Your task to perform on an android device: Open Chrome and go to settings Image 0: 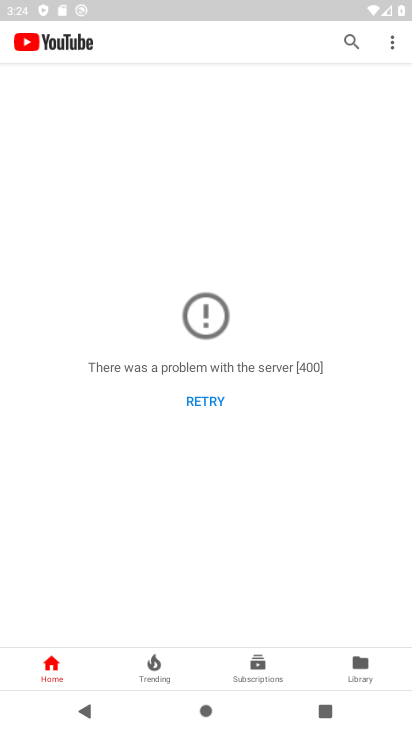
Step 0: press home button
Your task to perform on an android device: Open Chrome and go to settings Image 1: 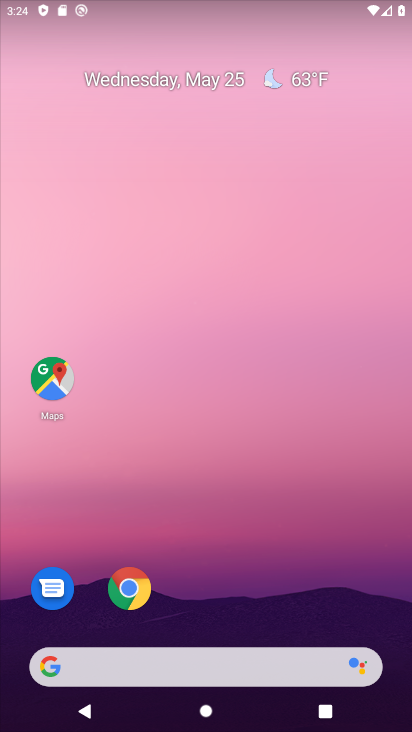
Step 1: click (140, 586)
Your task to perform on an android device: Open Chrome and go to settings Image 2: 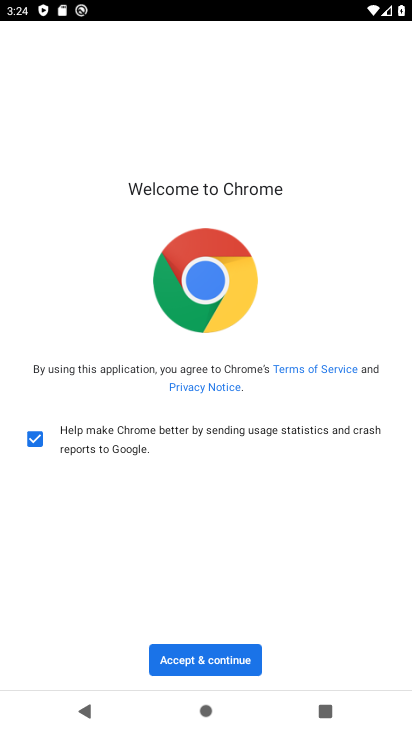
Step 2: click (188, 657)
Your task to perform on an android device: Open Chrome and go to settings Image 3: 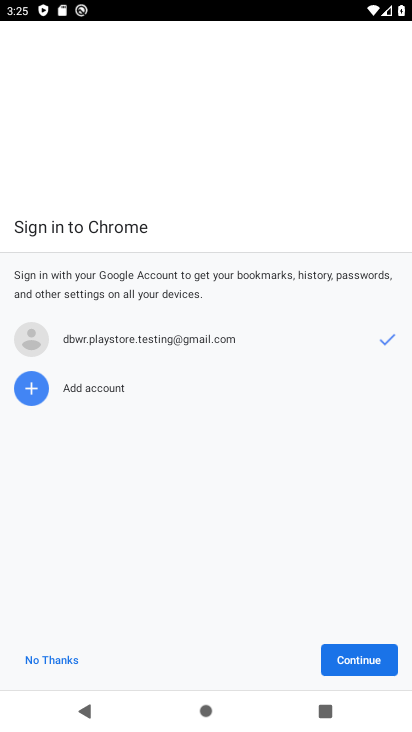
Step 3: click (382, 665)
Your task to perform on an android device: Open Chrome and go to settings Image 4: 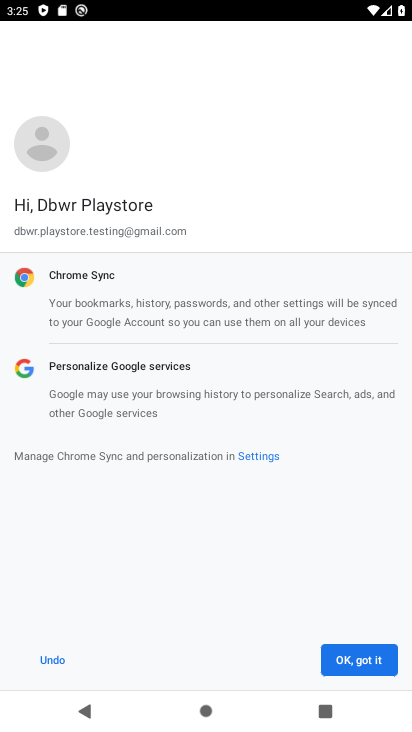
Step 4: click (382, 665)
Your task to perform on an android device: Open Chrome and go to settings Image 5: 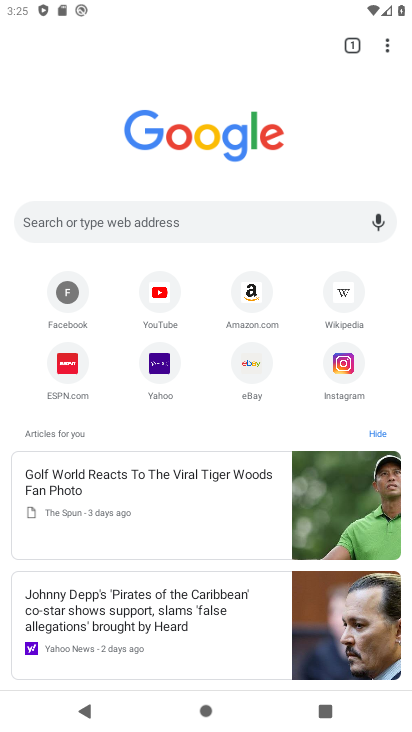
Step 5: click (393, 45)
Your task to perform on an android device: Open Chrome and go to settings Image 6: 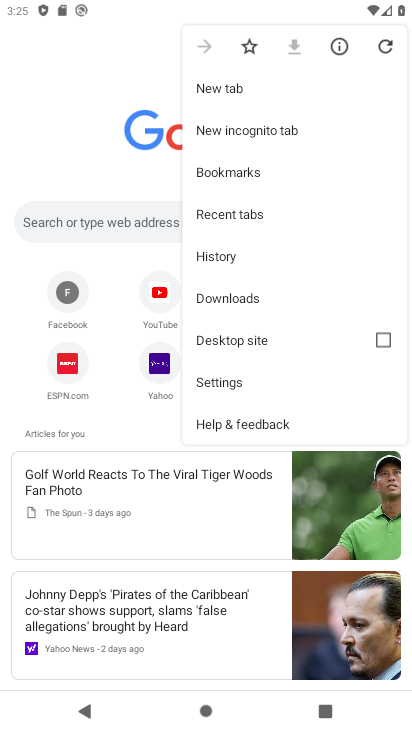
Step 6: click (271, 378)
Your task to perform on an android device: Open Chrome and go to settings Image 7: 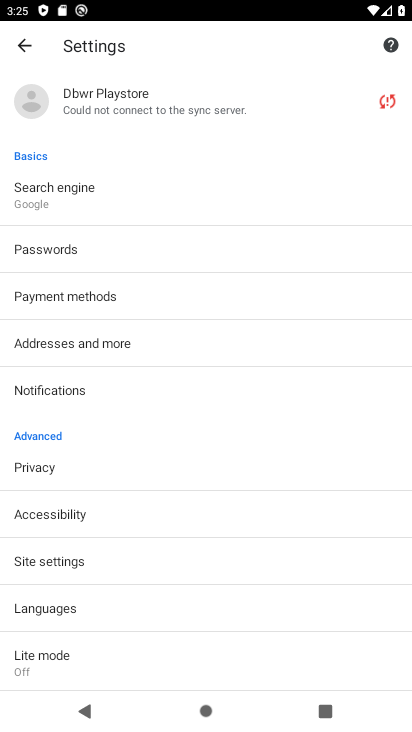
Step 7: task complete